Your task to perform on an android device: What's the weather going to be tomorrow? Image 0: 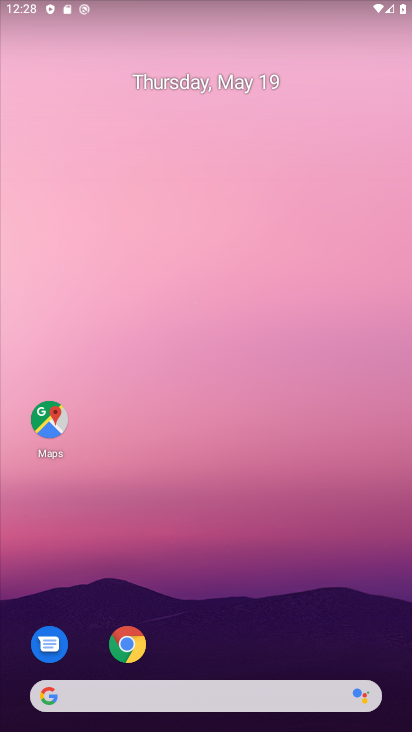
Step 0: drag from (389, 690) to (332, 231)
Your task to perform on an android device: What's the weather going to be tomorrow? Image 1: 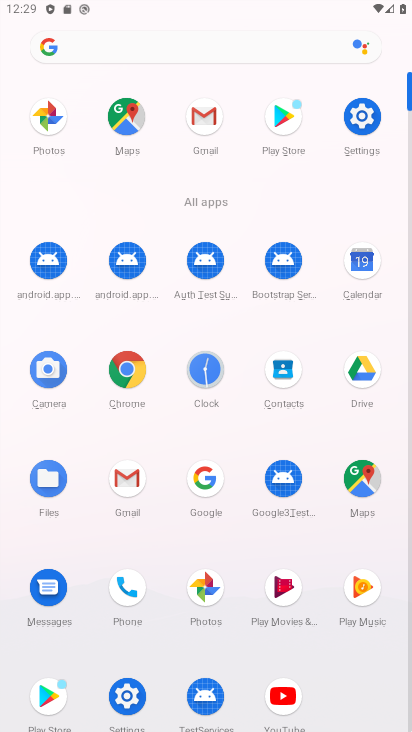
Step 1: press back button
Your task to perform on an android device: What's the weather going to be tomorrow? Image 2: 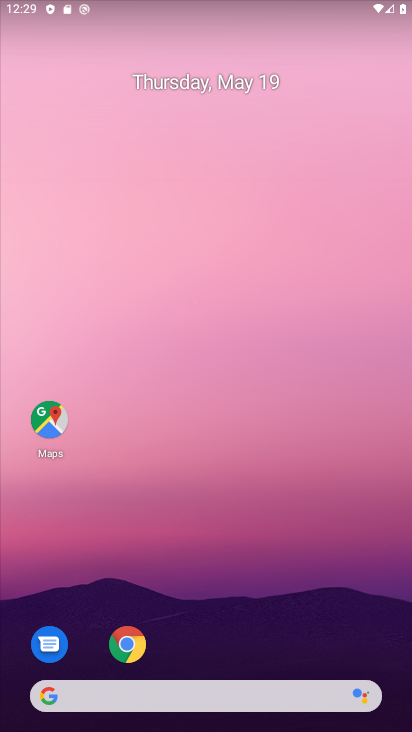
Step 2: drag from (361, 307) to (348, 195)
Your task to perform on an android device: What's the weather going to be tomorrow? Image 3: 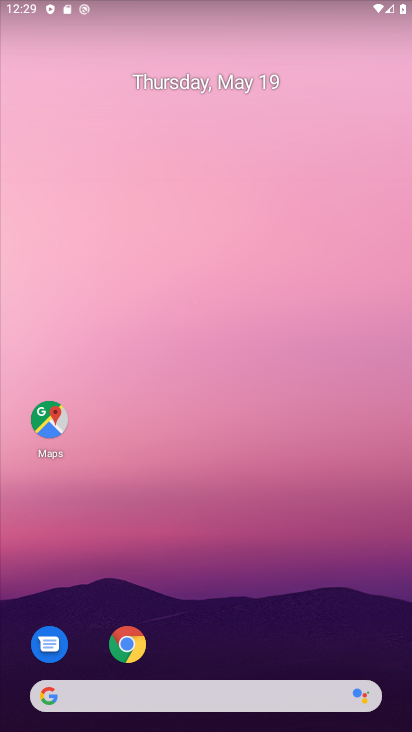
Step 3: drag from (395, 694) to (326, 375)
Your task to perform on an android device: What's the weather going to be tomorrow? Image 4: 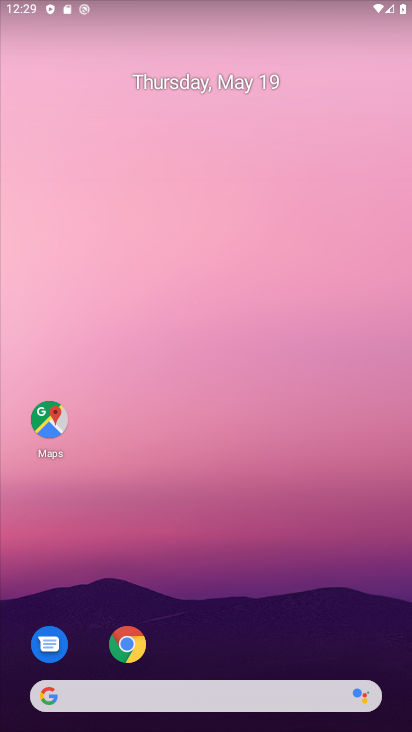
Step 4: drag from (396, 692) to (379, 501)
Your task to perform on an android device: What's the weather going to be tomorrow? Image 5: 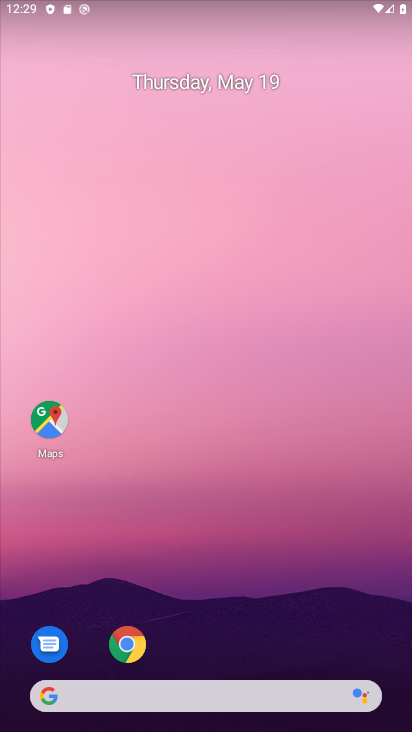
Step 5: drag from (393, 687) to (350, 400)
Your task to perform on an android device: What's the weather going to be tomorrow? Image 6: 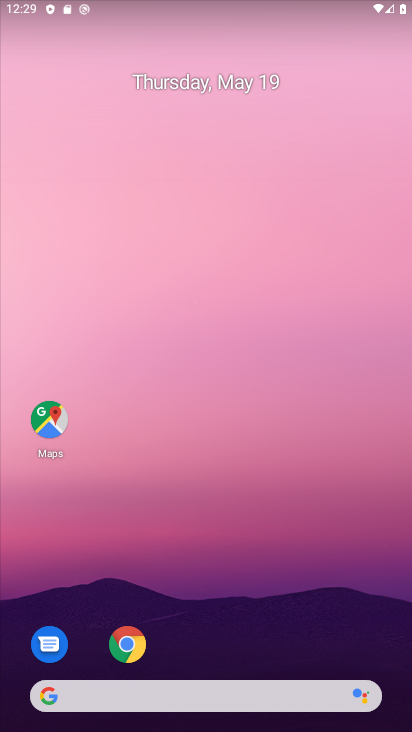
Step 6: drag from (391, 709) to (342, 328)
Your task to perform on an android device: What's the weather going to be tomorrow? Image 7: 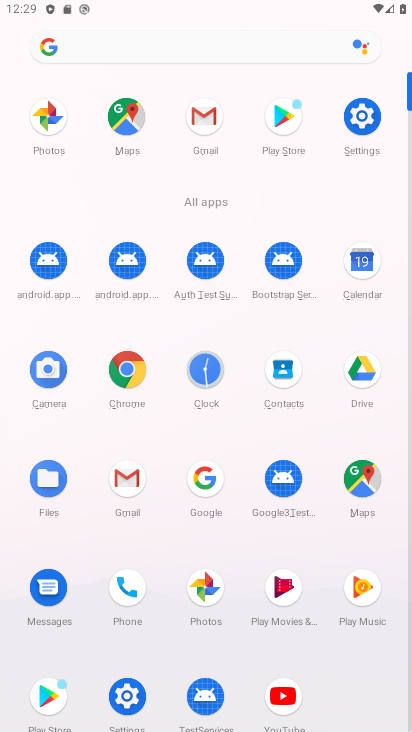
Step 7: click (192, 475)
Your task to perform on an android device: What's the weather going to be tomorrow? Image 8: 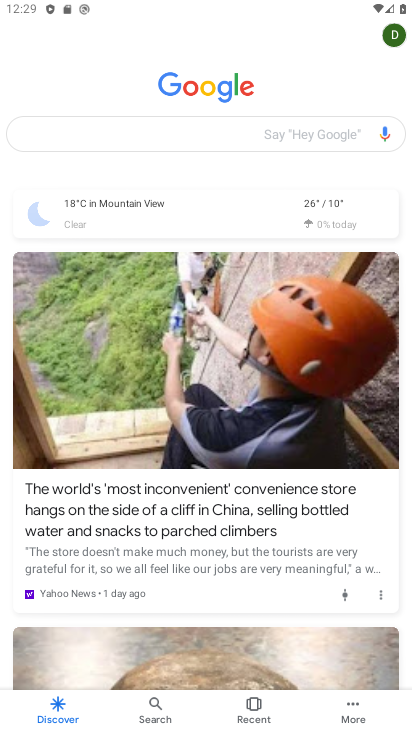
Step 8: click (324, 204)
Your task to perform on an android device: What's the weather going to be tomorrow? Image 9: 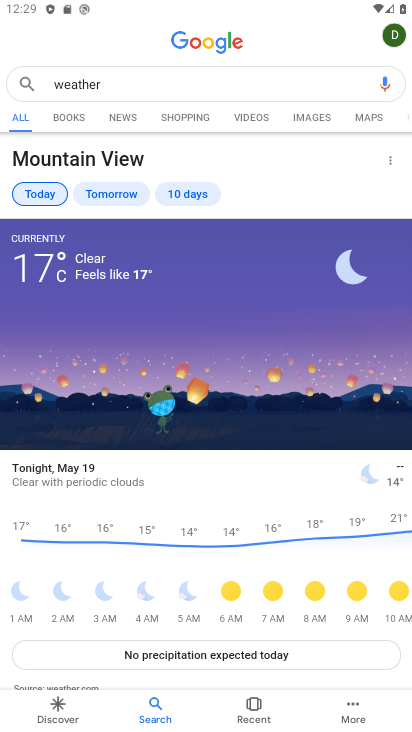
Step 9: task complete